Your task to perform on an android device: clear all cookies in the chrome app Image 0: 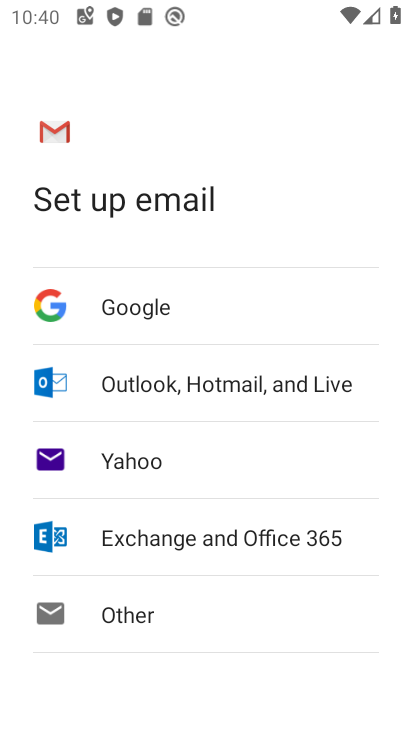
Step 0: press home button
Your task to perform on an android device: clear all cookies in the chrome app Image 1: 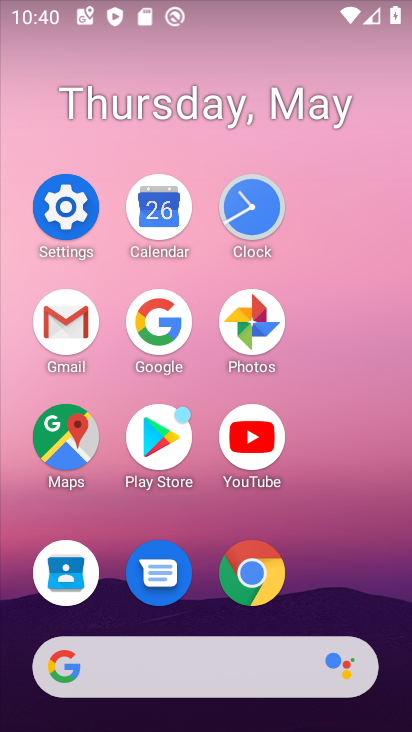
Step 1: click (265, 553)
Your task to perform on an android device: clear all cookies in the chrome app Image 2: 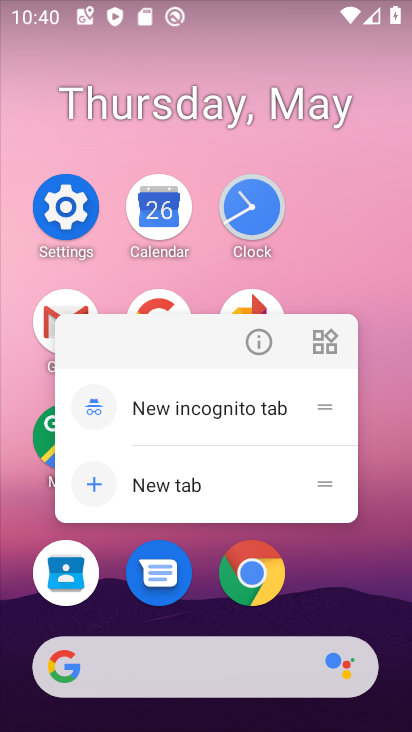
Step 2: click (259, 571)
Your task to perform on an android device: clear all cookies in the chrome app Image 3: 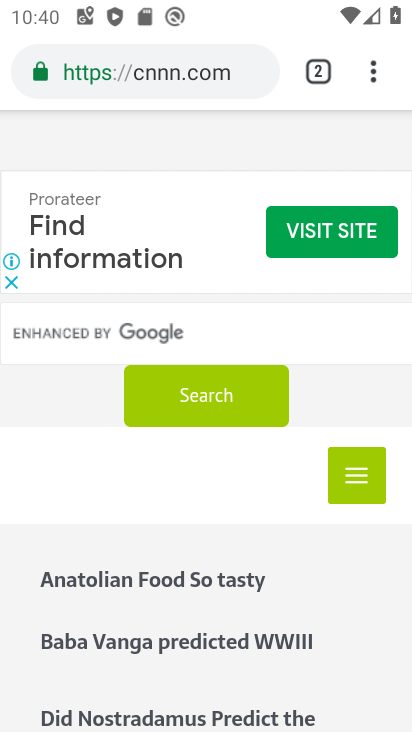
Step 3: click (369, 81)
Your task to perform on an android device: clear all cookies in the chrome app Image 4: 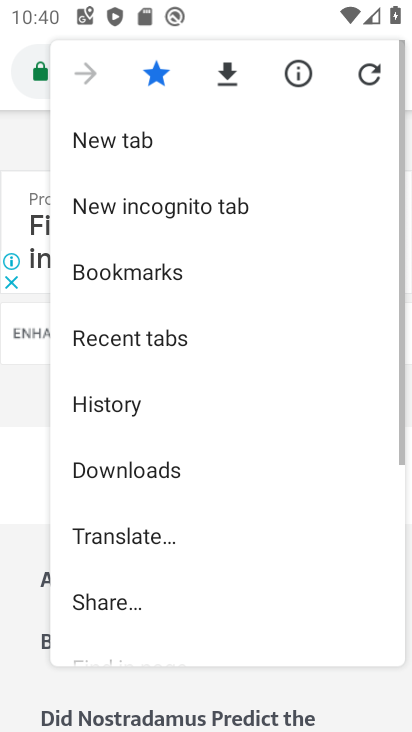
Step 4: drag from (209, 522) to (268, 198)
Your task to perform on an android device: clear all cookies in the chrome app Image 5: 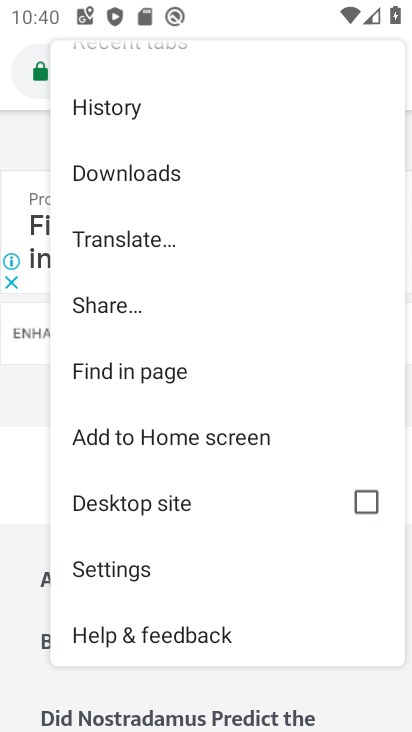
Step 5: click (153, 571)
Your task to perform on an android device: clear all cookies in the chrome app Image 6: 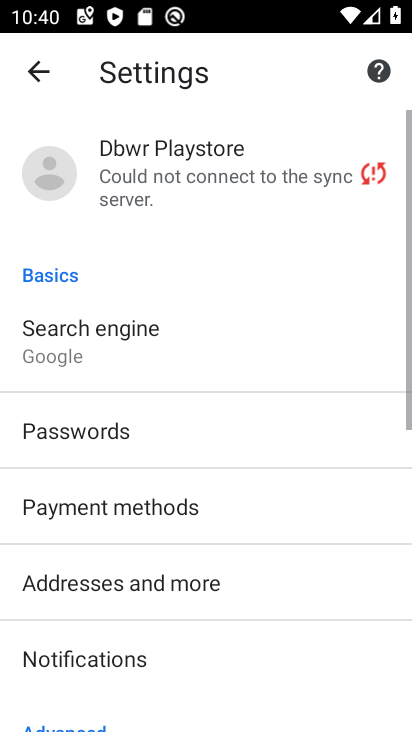
Step 6: drag from (149, 559) to (205, 215)
Your task to perform on an android device: clear all cookies in the chrome app Image 7: 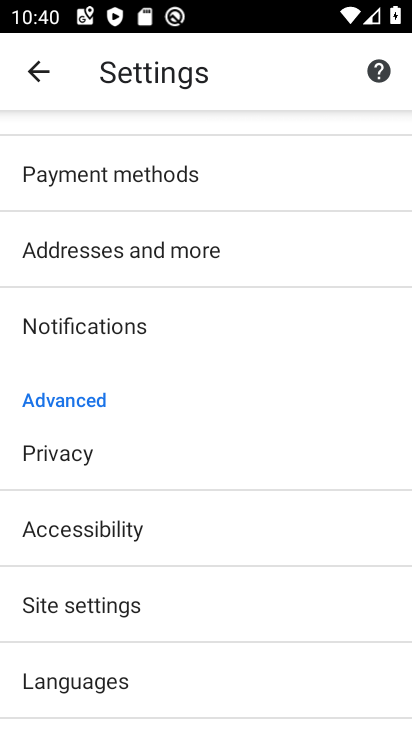
Step 7: click (149, 592)
Your task to perform on an android device: clear all cookies in the chrome app Image 8: 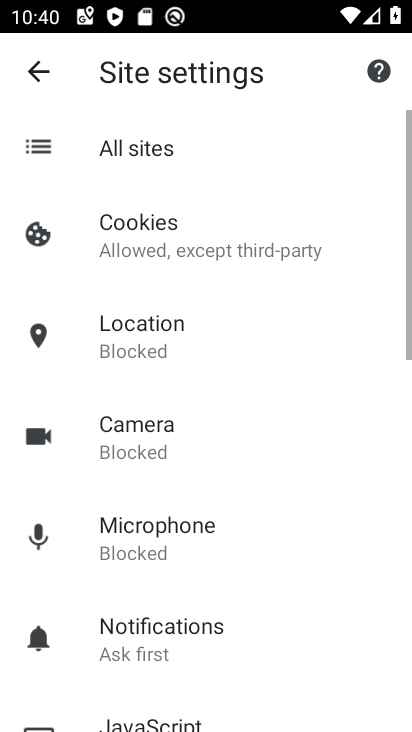
Step 8: click (218, 224)
Your task to perform on an android device: clear all cookies in the chrome app Image 9: 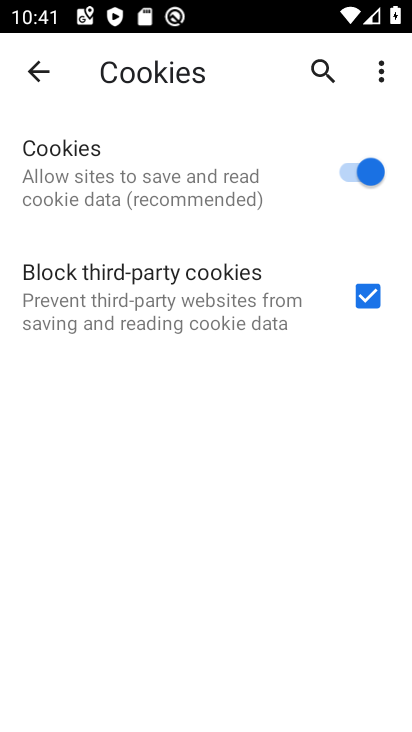
Step 9: task complete